Your task to perform on an android device: open the mobile data screen to see how much data has been used Image 0: 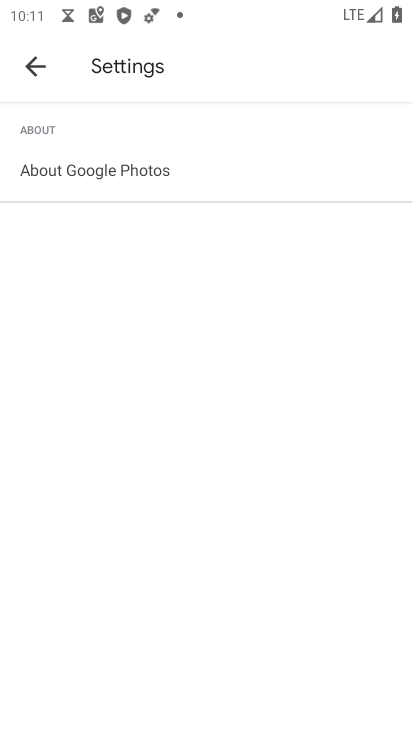
Step 0: press home button
Your task to perform on an android device: open the mobile data screen to see how much data has been used Image 1: 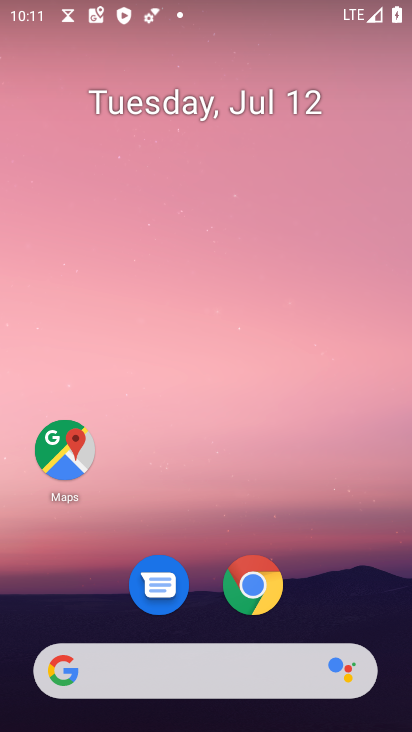
Step 1: drag from (219, 615) to (361, 58)
Your task to perform on an android device: open the mobile data screen to see how much data has been used Image 2: 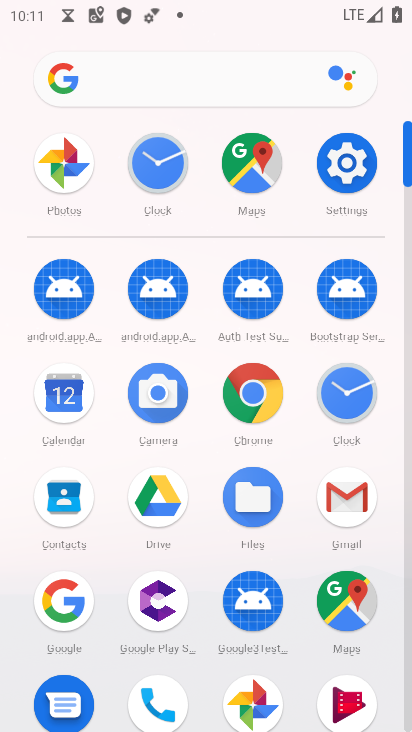
Step 2: click (357, 165)
Your task to perform on an android device: open the mobile data screen to see how much data has been used Image 3: 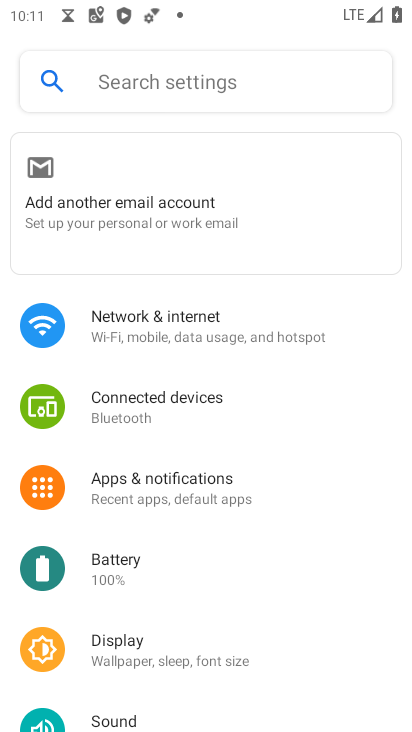
Step 3: click (174, 330)
Your task to perform on an android device: open the mobile data screen to see how much data has been used Image 4: 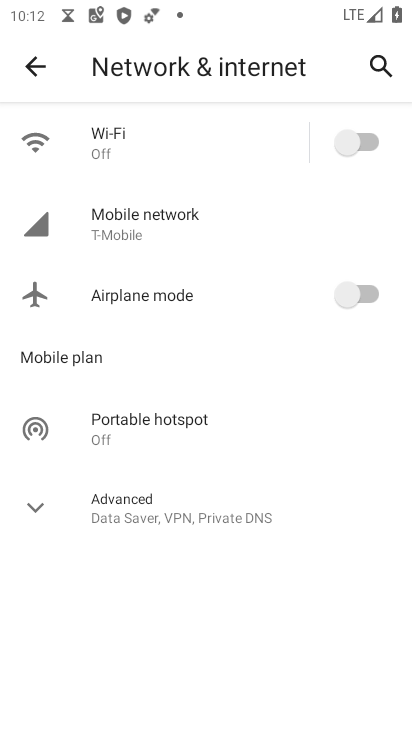
Step 4: click (167, 223)
Your task to perform on an android device: open the mobile data screen to see how much data has been used Image 5: 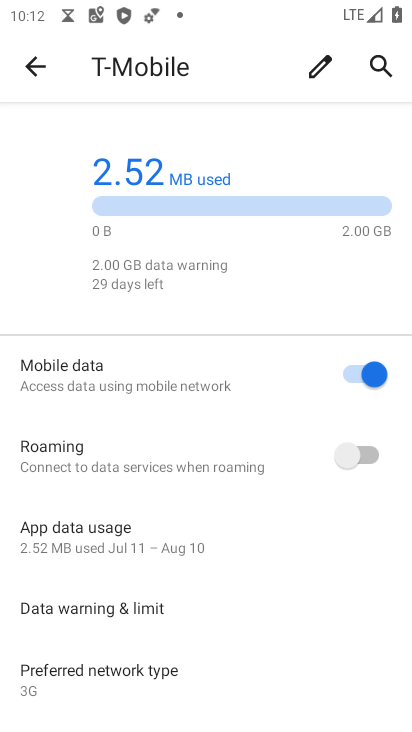
Step 5: task complete